Your task to perform on an android device: open chrome privacy settings Image 0: 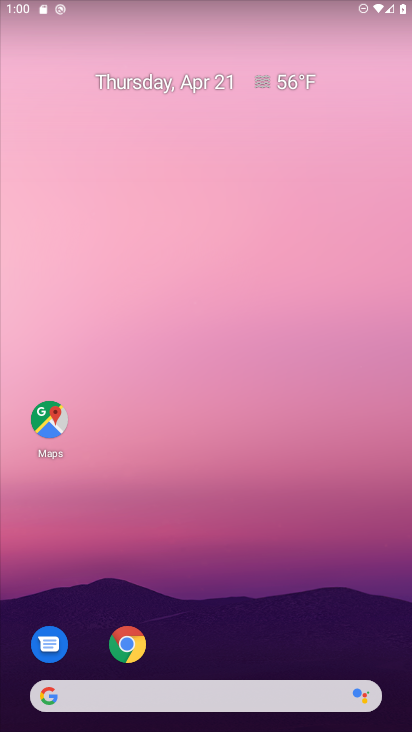
Step 0: drag from (215, 624) to (249, 228)
Your task to perform on an android device: open chrome privacy settings Image 1: 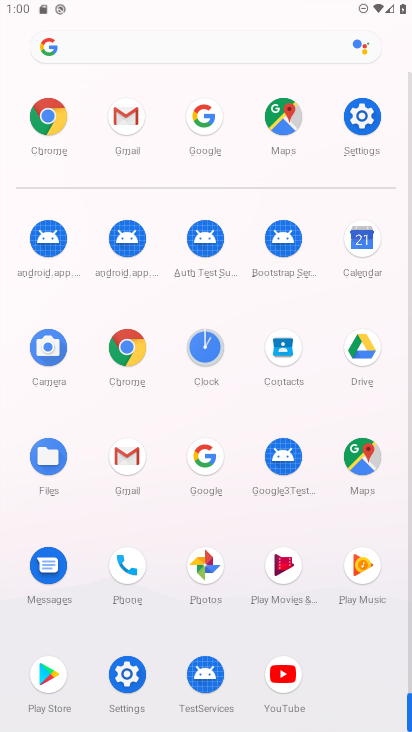
Step 1: click (367, 120)
Your task to perform on an android device: open chrome privacy settings Image 2: 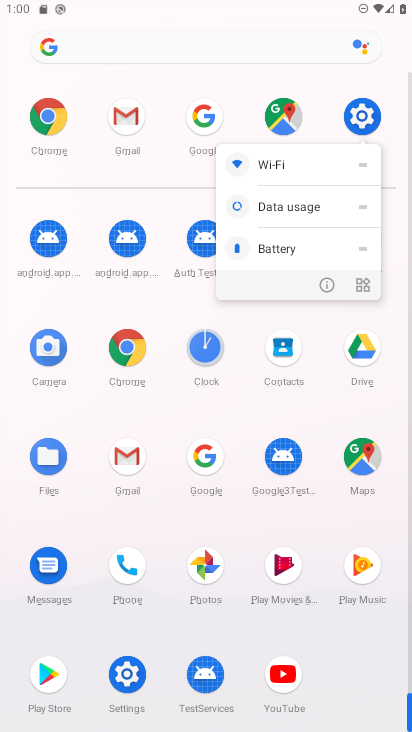
Step 2: click (126, 346)
Your task to perform on an android device: open chrome privacy settings Image 3: 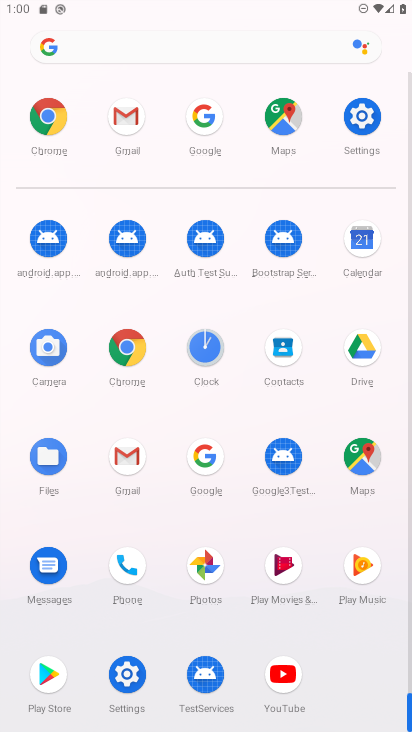
Step 3: click (123, 343)
Your task to perform on an android device: open chrome privacy settings Image 4: 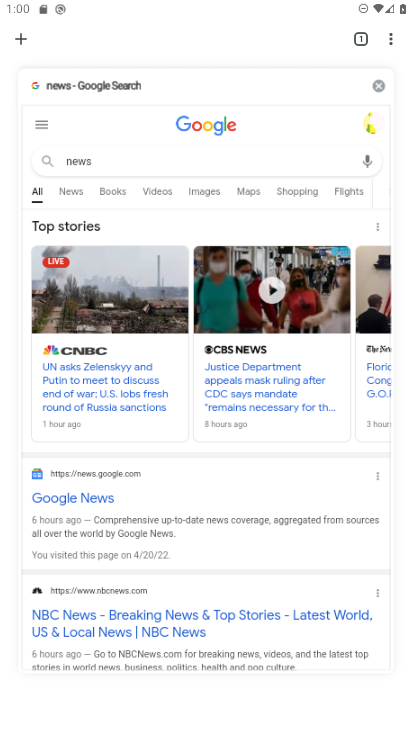
Step 4: click (389, 36)
Your task to perform on an android device: open chrome privacy settings Image 5: 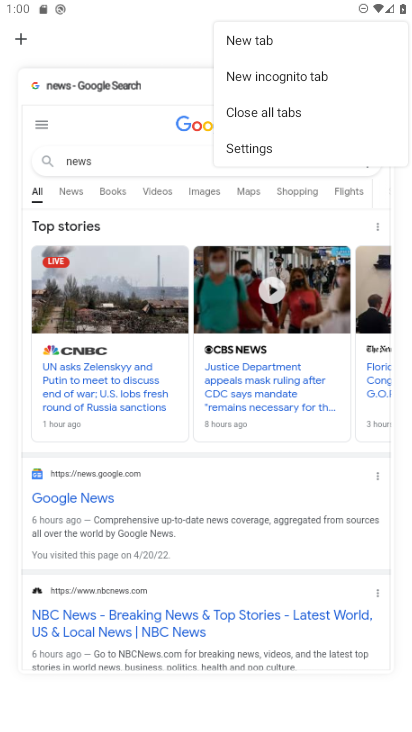
Step 5: click (266, 148)
Your task to perform on an android device: open chrome privacy settings Image 6: 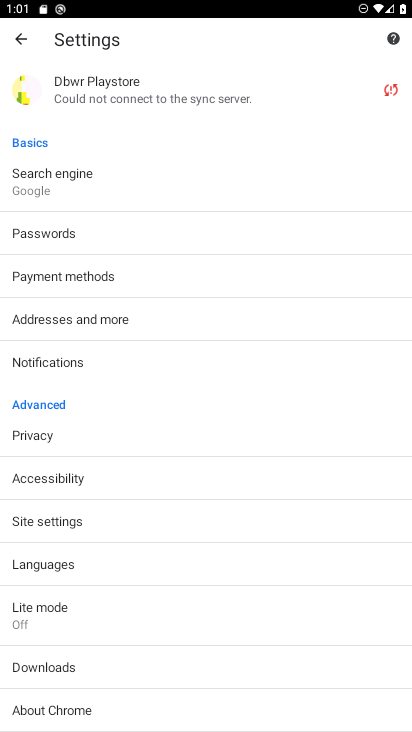
Step 6: click (62, 437)
Your task to perform on an android device: open chrome privacy settings Image 7: 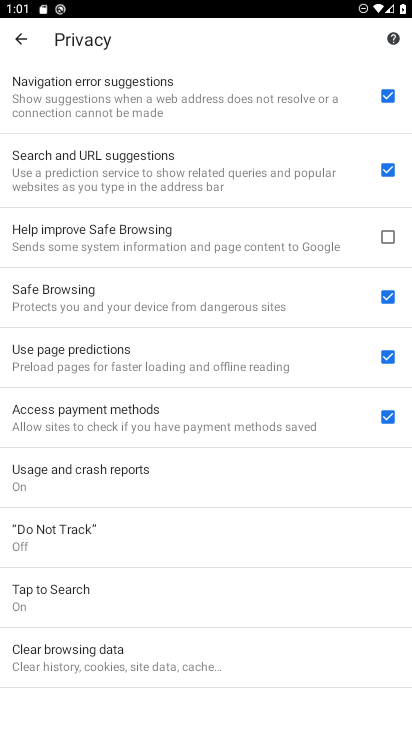
Step 7: task complete